Your task to perform on an android device: Go to privacy settings Image 0: 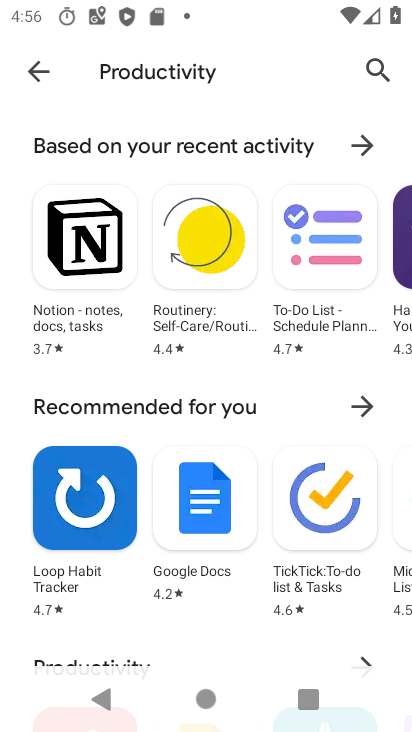
Step 0: press home button
Your task to perform on an android device: Go to privacy settings Image 1: 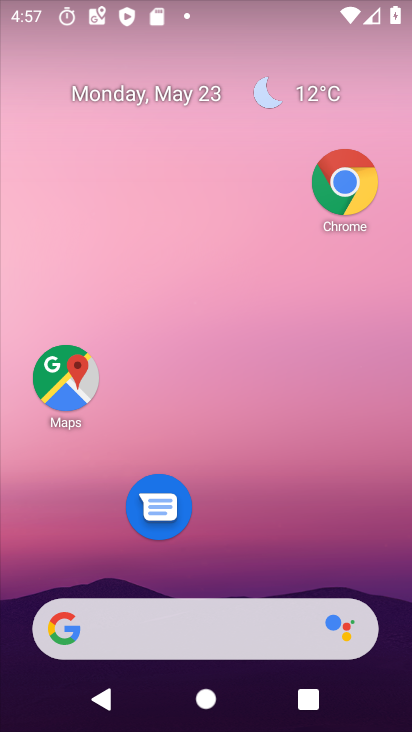
Step 1: drag from (205, 566) to (208, 87)
Your task to perform on an android device: Go to privacy settings Image 2: 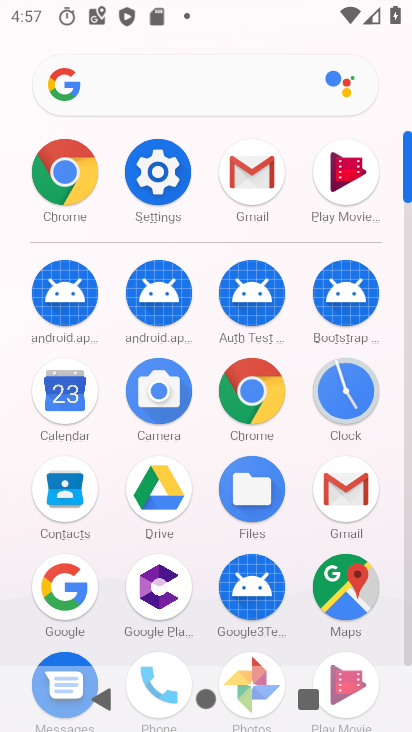
Step 2: click (160, 161)
Your task to perform on an android device: Go to privacy settings Image 3: 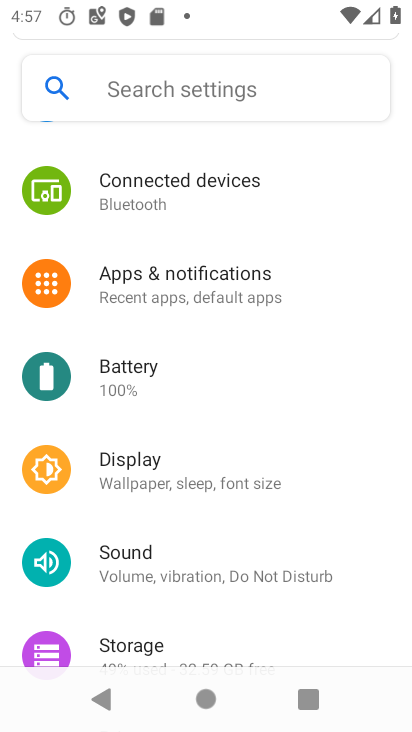
Step 3: drag from (189, 589) to (245, 250)
Your task to perform on an android device: Go to privacy settings Image 4: 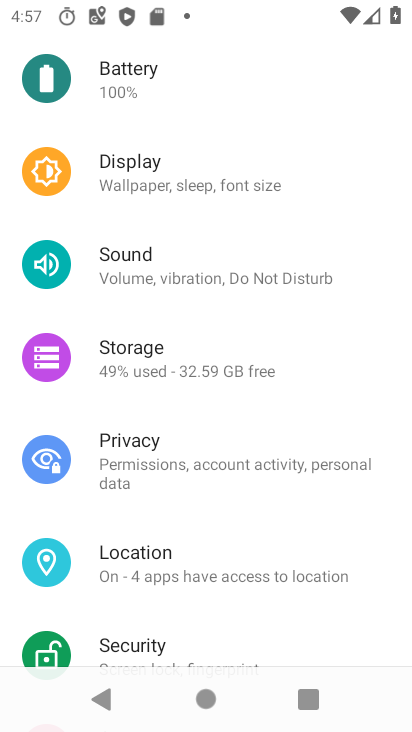
Step 4: click (158, 468)
Your task to perform on an android device: Go to privacy settings Image 5: 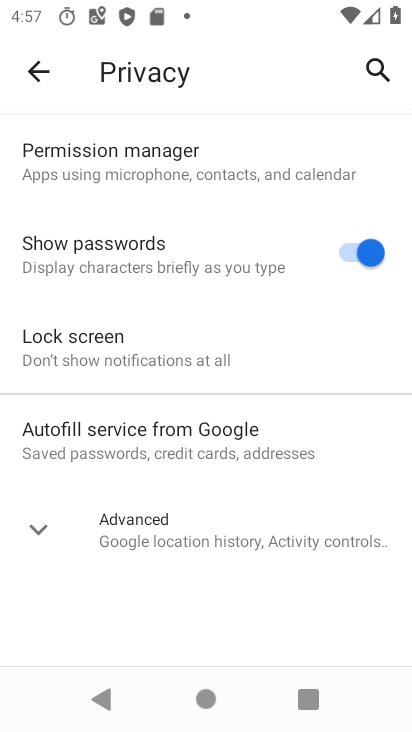
Step 5: task complete